Your task to perform on an android device: open the mobile data screen to see how much data has been used Image 0: 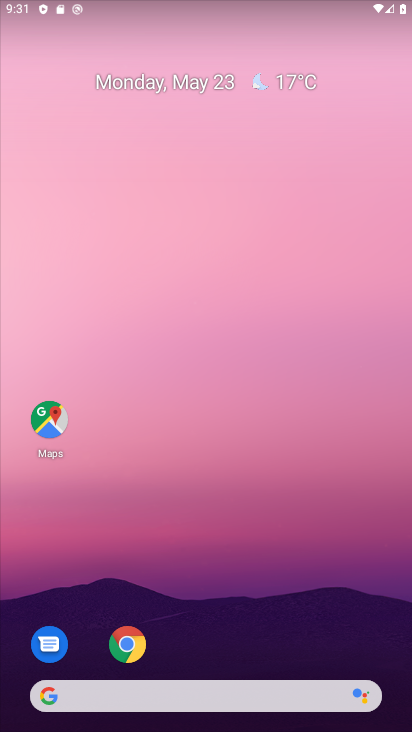
Step 0: drag from (194, 661) to (257, 254)
Your task to perform on an android device: open the mobile data screen to see how much data has been used Image 1: 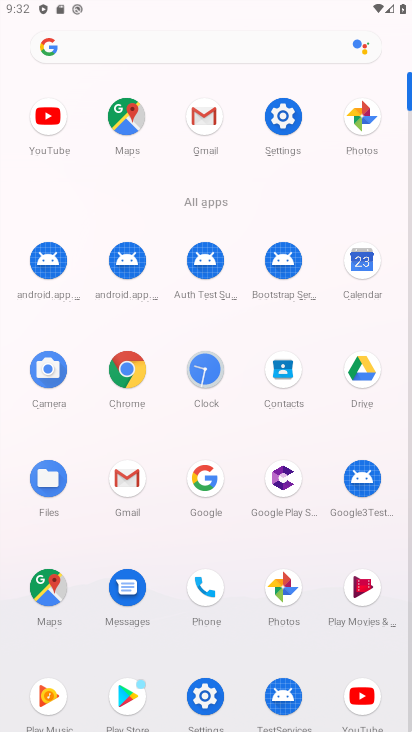
Step 1: click (277, 112)
Your task to perform on an android device: open the mobile data screen to see how much data has been used Image 2: 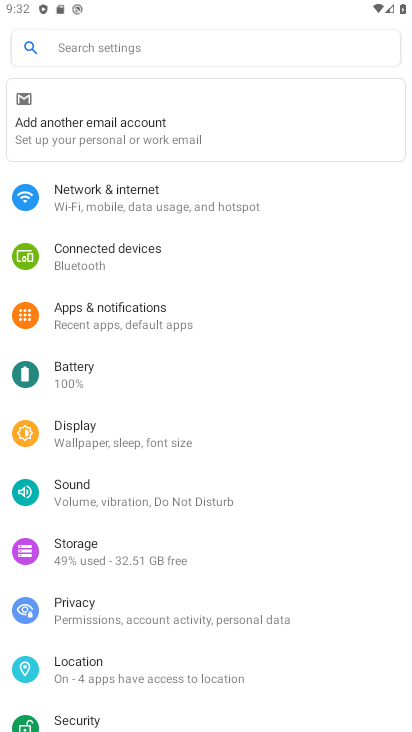
Step 2: click (119, 205)
Your task to perform on an android device: open the mobile data screen to see how much data has been used Image 3: 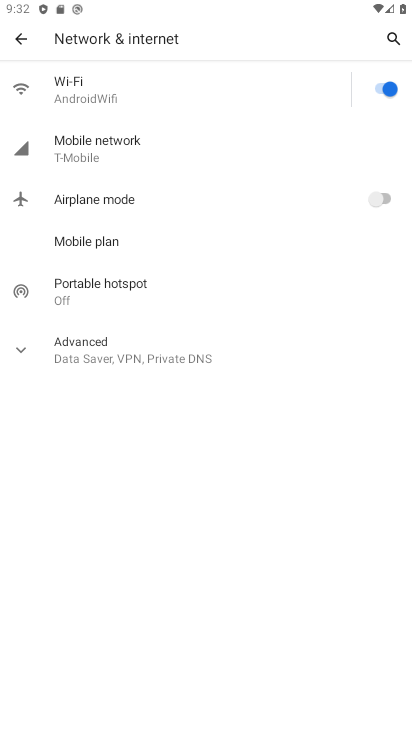
Step 3: click (92, 161)
Your task to perform on an android device: open the mobile data screen to see how much data has been used Image 4: 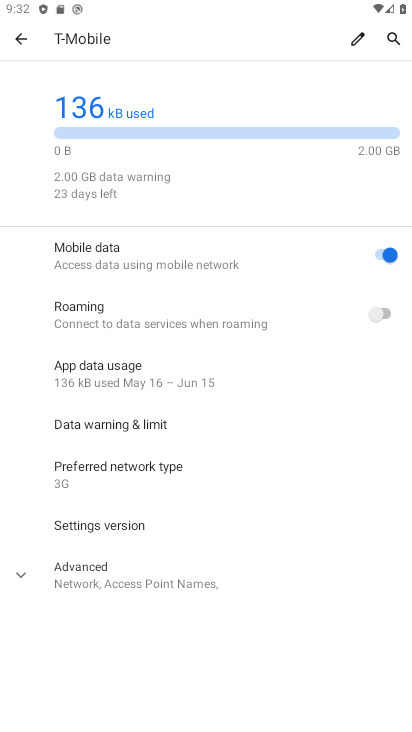
Step 4: task complete